Your task to perform on an android device: Open Android settings Image 0: 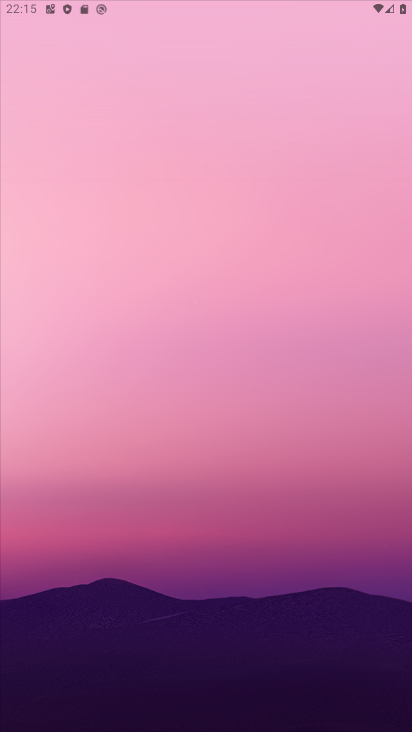
Step 0: drag from (239, 688) to (191, 195)
Your task to perform on an android device: Open Android settings Image 1: 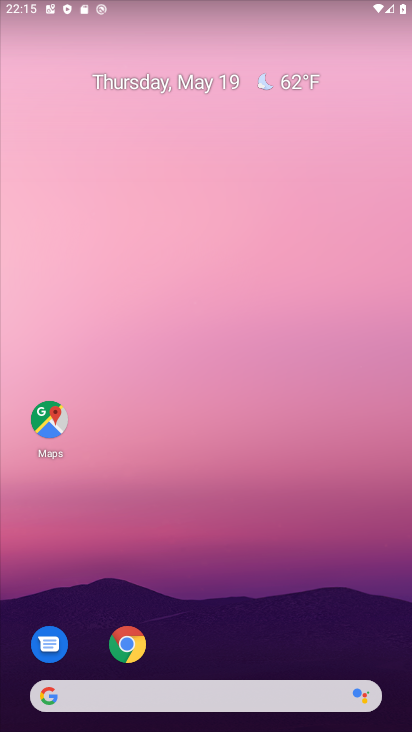
Step 1: drag from (228, 617) to (217, 90)
Your task to perform on an android device: Open Android settings Image 2: 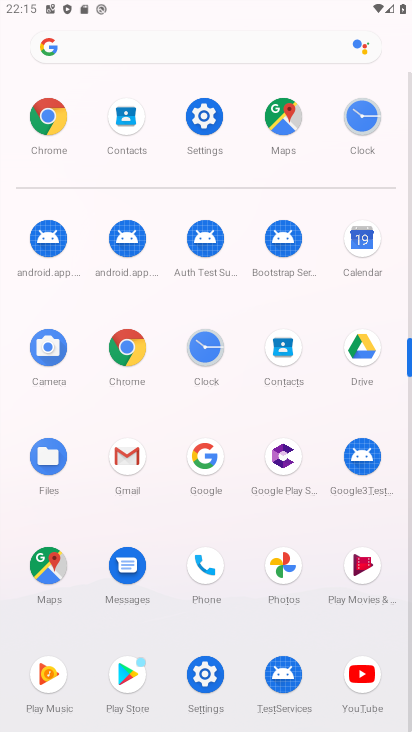
Step 2: click (199, 110)
Your task to perform on an android device: Open Android settings Image 3: 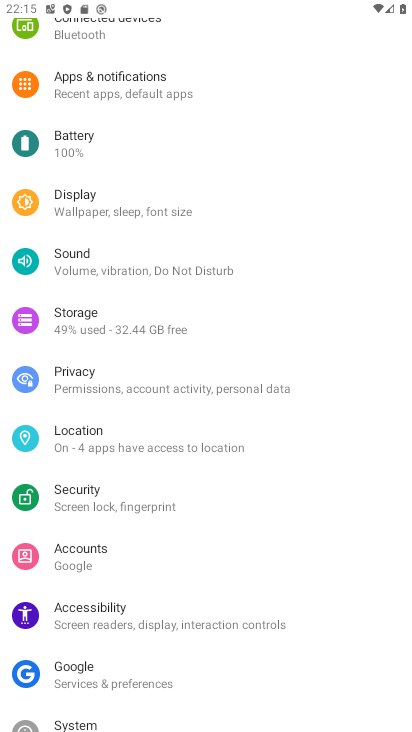
Step 3: drag from (153, 626) to (135, 158)
Your task to perform on an android device: Open Android settings Image 4: 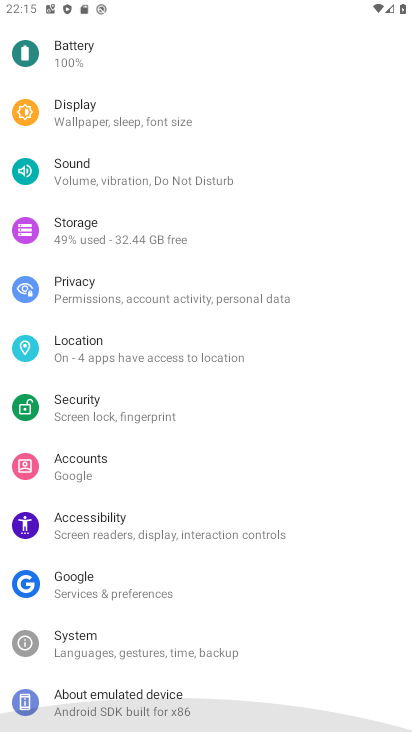
Step 4: drag from (201, 508) to (173, 155)
Your task to perform on an android device: Open Android settings Image 5: 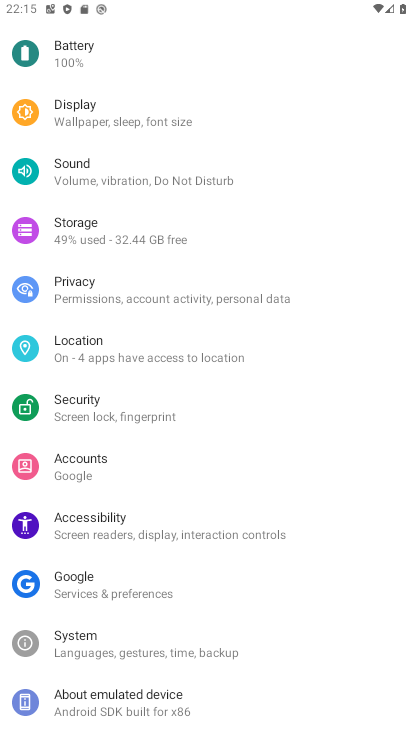
Step 5: drag from (207, 535) to (180, 192)
Your task to perform on an android device: Open Android settings Image 6: 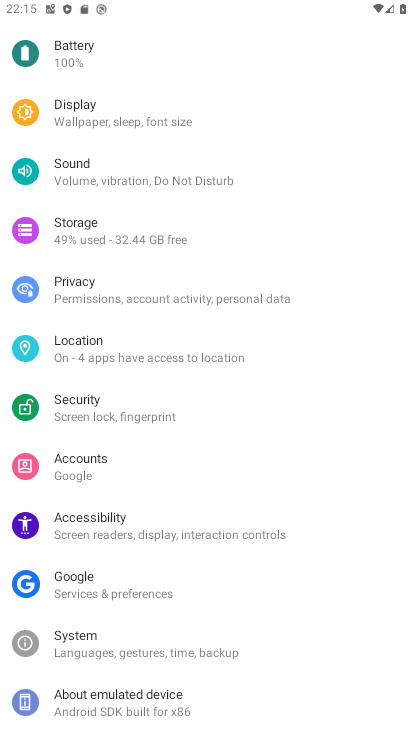
Step 6: drag from (92, 686) to (86, 723)
Your task to perform on an android device: Open Android settings Image 7: 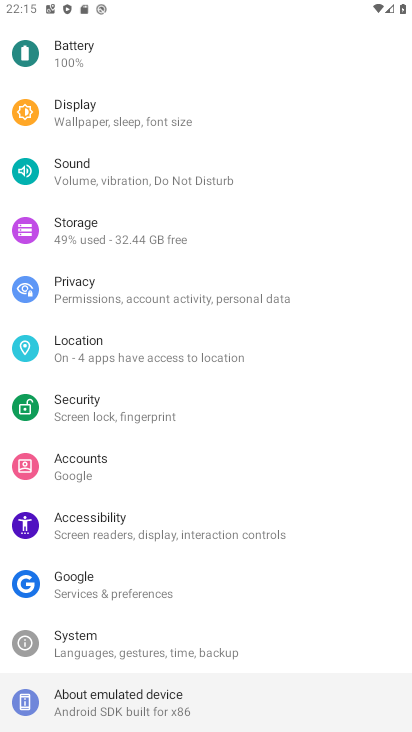
Step 7: click (89, 709)
Your task to perform on an android device: Open Android settings Image 8: 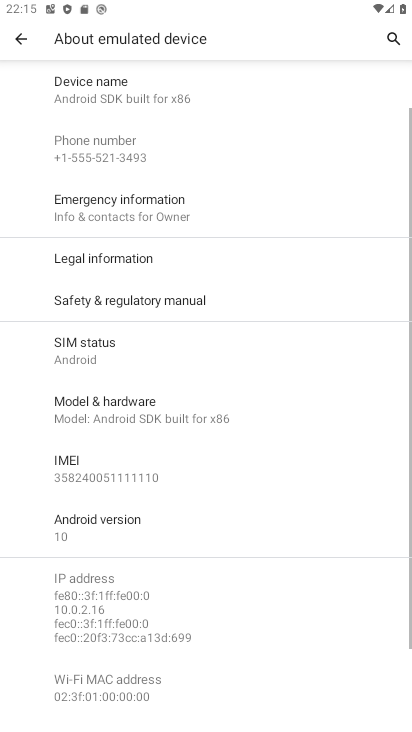
Step 8: task complete